Your task to perform on an android device: open chrome privacy settings Image 0: 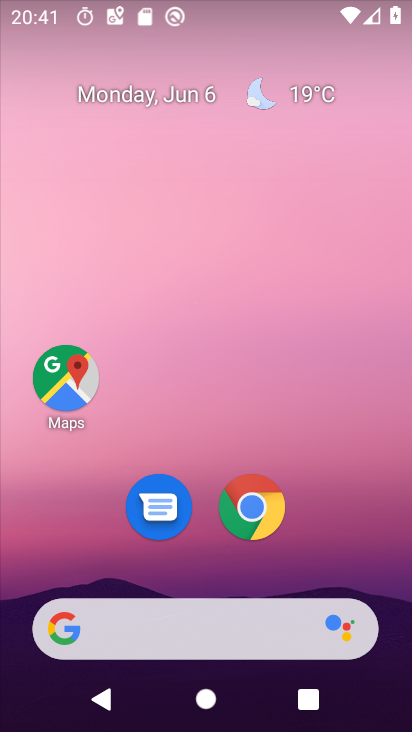
Step 0: press home button
Your task to perform on an android device: open chrome privacy settings Image 1: 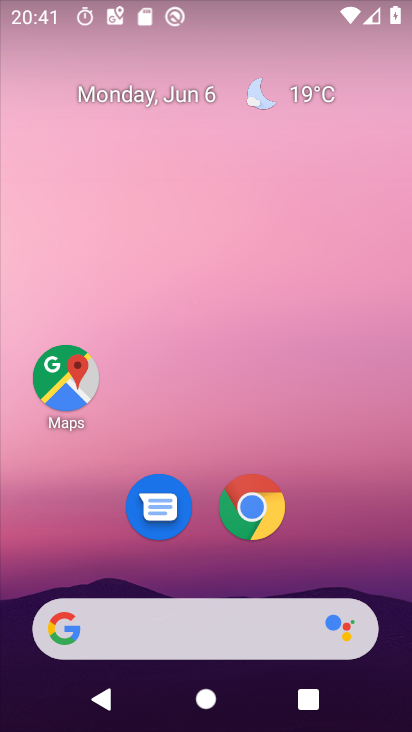
Step 1: drag from (351, 589) to (351, 678)
Your task to perform on an android device: open chrome privacy settings Image 2: 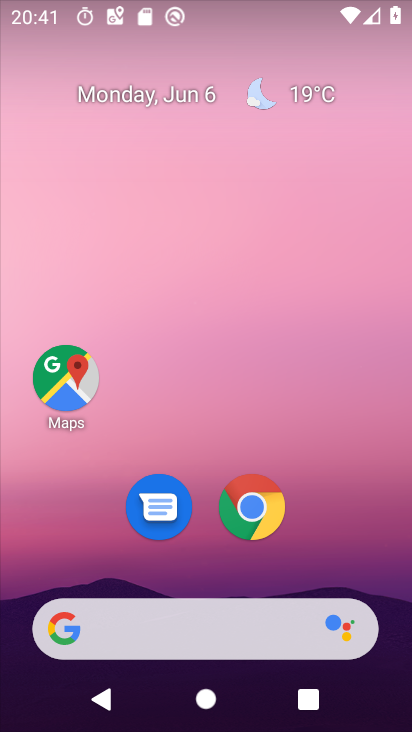
Step 2: click (253, 517)
Your task to perform on an android device: open chrome privacy settings Image 3: 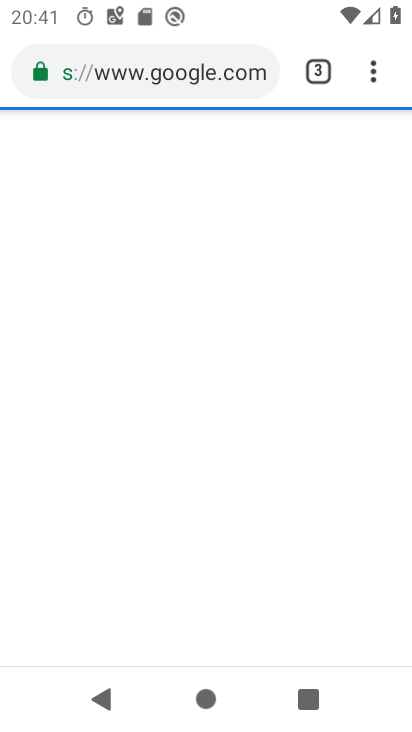
Step 3: drag from (366, 65) to (156, 495)
Your task to perform on an android device: open chrome privacy settings Image 4: 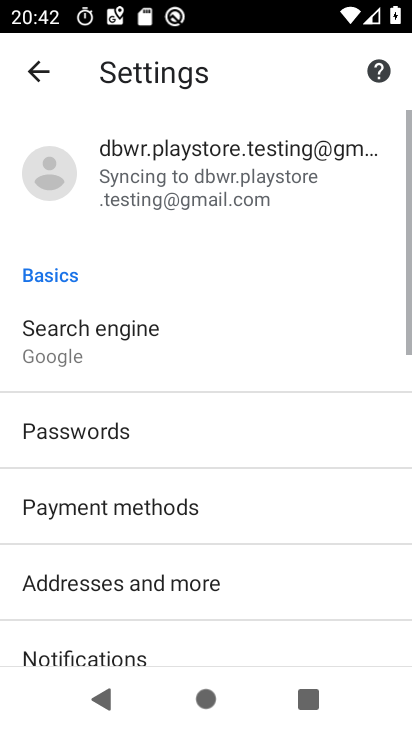
Step 4: drag from (239, 612) to (255, 104)
Your task to perform on an android device: open chrome privacy settings Image 5: 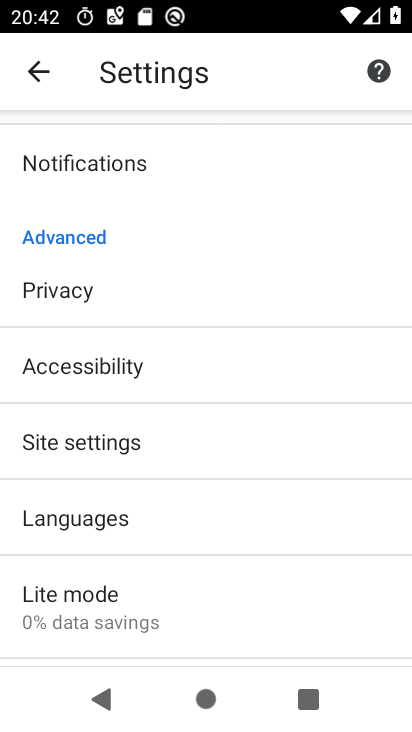
Step 5: click (104, 287)
Your task to perform on an android device: open chrome privacy settings Image 6: 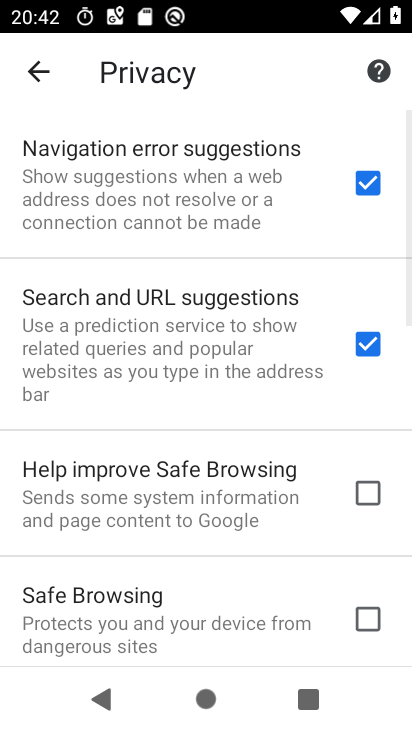
Step 6: task complete